Your task to perform on an android device: toggle improve location accuracy Image 0: 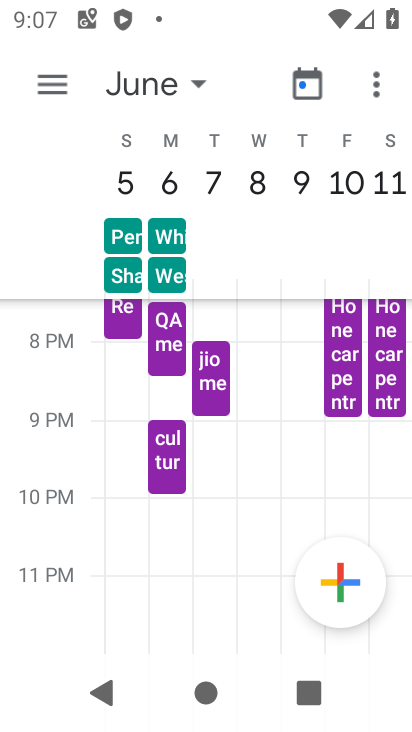
Step 0: press home button
Your task to perform on an android device: toggle improve location accuracy Image 1: 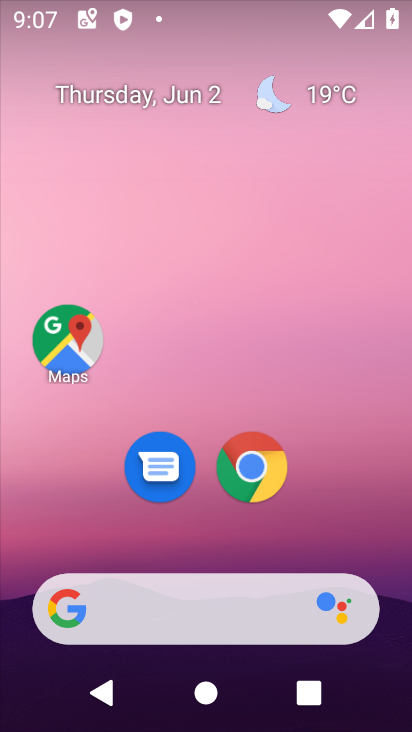
Step 1: drag from (197, 539) to (143, 18)
Your task to perform on an android device: toggle improve location accuracy Image 2: 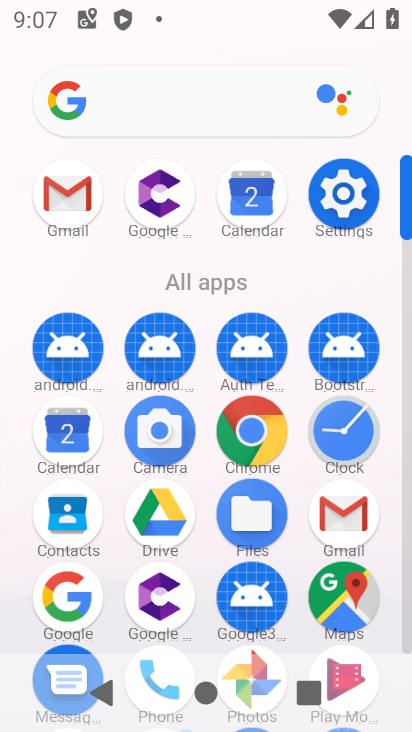
Step 2: click (339, 203)
Your task to perform on an android device: toggle improve location accuracy Image 3: 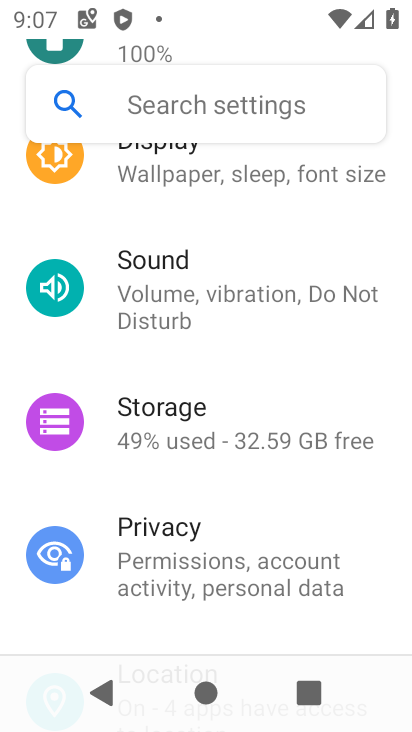
Step 3: drag from (219, 208) to (229, 394)
Your task to perform on an android device: toggle improve location accuracy Image 4: 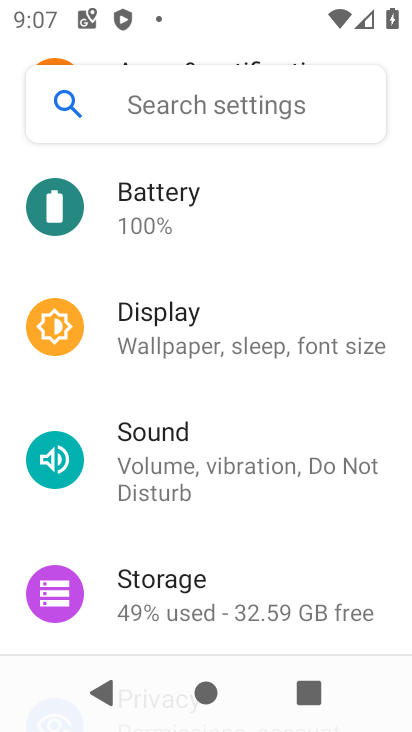
Step 4: drag from (223, 298) to (228, 524)
Your task to perform on an android device: toggle improve location accuracy Image 5: 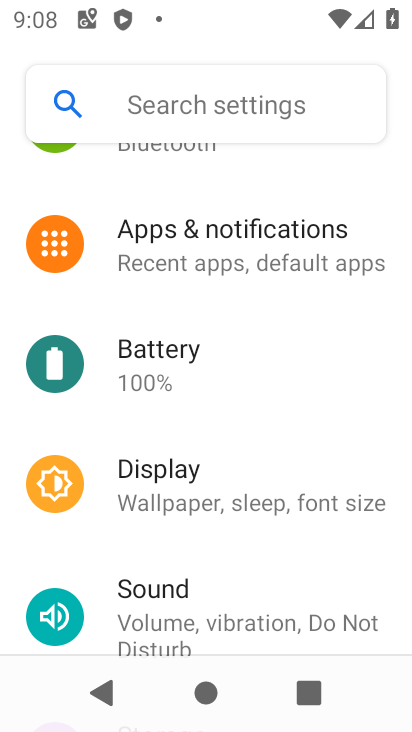
Step 5: drag from (196, 317) to (191, 637)
Your task to perform on an android device: toggle improve location accuracy Image 6: 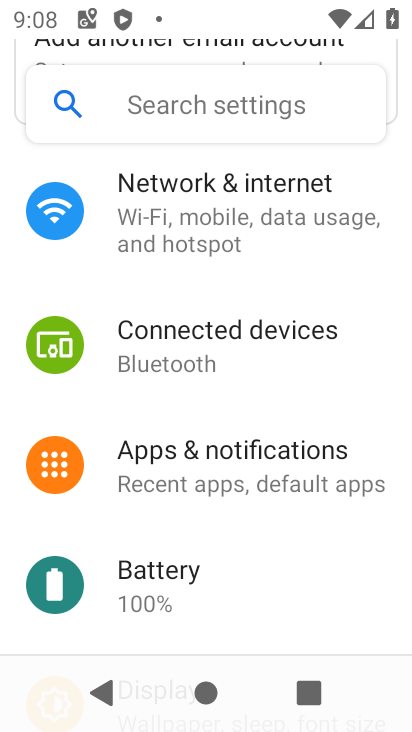
Step 6: drag from (210, 326) to (211, 579)
Your task to perform on an android device: toggle improve location accuracy Image 7: 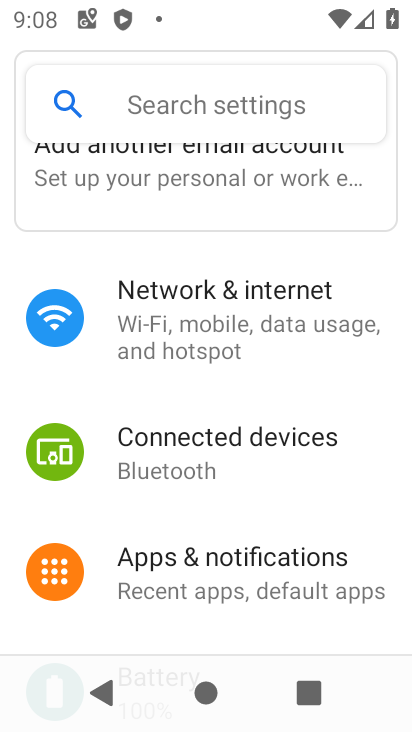
Step 7: drag from (211, 572) to (235, 152)
Your task to perform on an android device: toggle improve location accuracy Image 8: 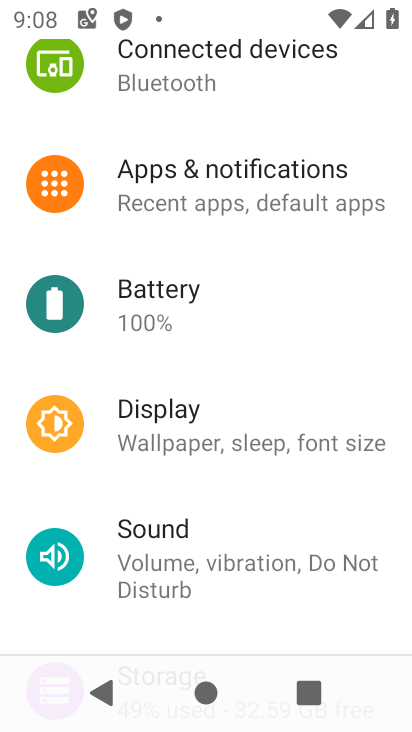
Step 8: drag from (221, 547) to (200, 260)
Your task to perform on an android device: toggle improve location accuracy Image 9: 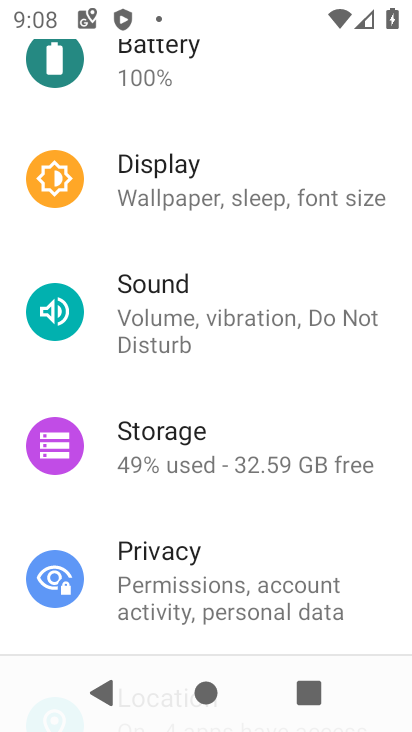
Step 9: drag from (203, 330) to (198, 546)
Your task to perform on an android device: toggle improve location accuracy Image 10: 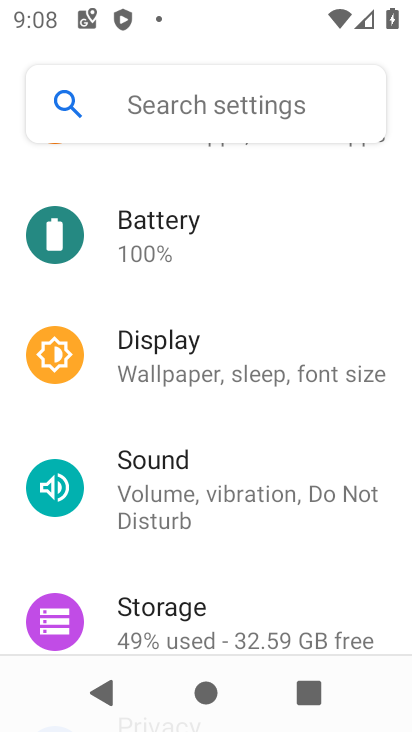
Step 10: drag from (240, 325) to (220, 662)
Your task to perform on an android device: toggle improve location accuracy Image 11: 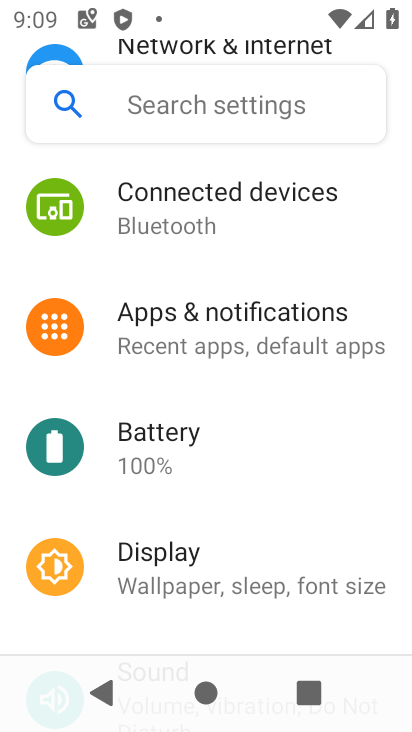
Step 11: drag from (234, 563) to (193, 395)
Your task to perform on an android device: toggle improve location accuracy Image 12: 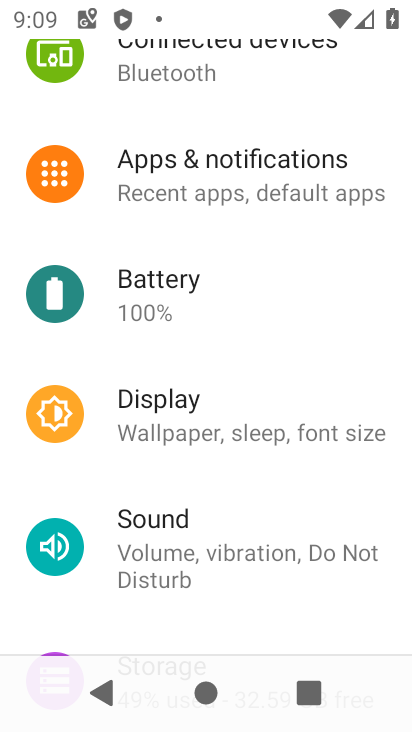
Step 12: drag from (210, 537) to (222, 264)
Your task to perform on an android device: toggle improve location accuracy Image 13: 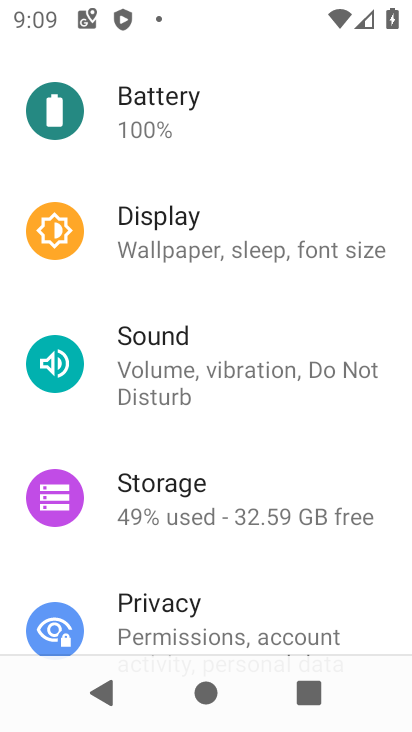
Step 13: drag from (210, 531) to (204, 311)
Your task to perform on an android device: toggle improve location accuracy Image 14: 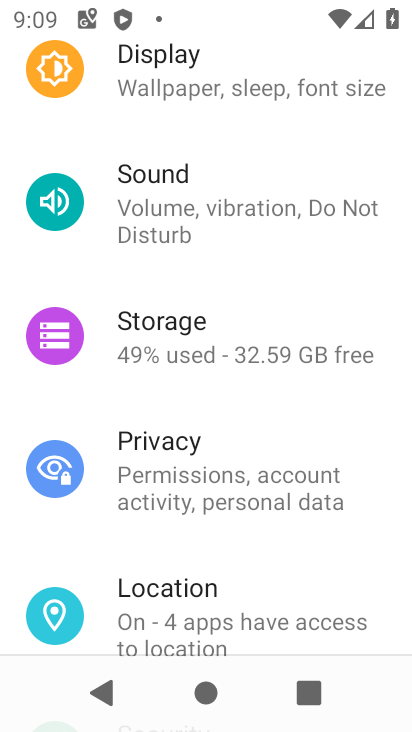
Step 14: click (176, 609)
Your task to perform on an android device: toggle improve location accuracy Image 15: 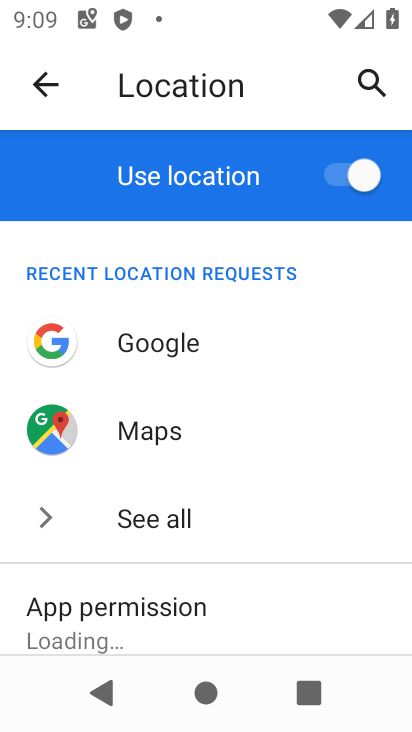
Step 15: drag from (210, 581) to (222, 264)
Your task to perform on an android device: toggle improve location accuracy Image 16: 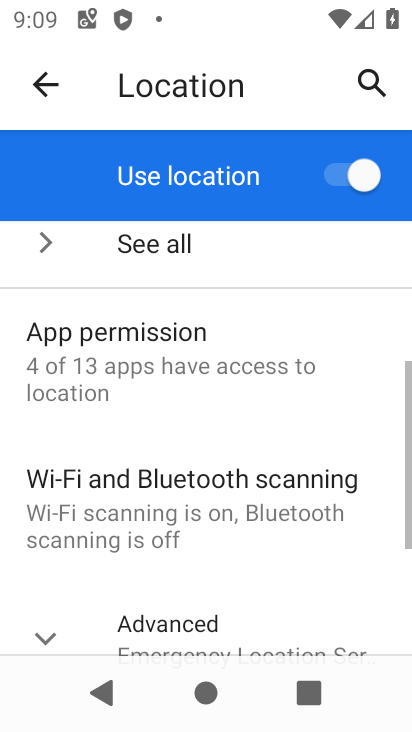
Step 16: drag from (166, 567) to (163, 338)
Your task to perform on an android device: toggle improve location accuracy Image 17: 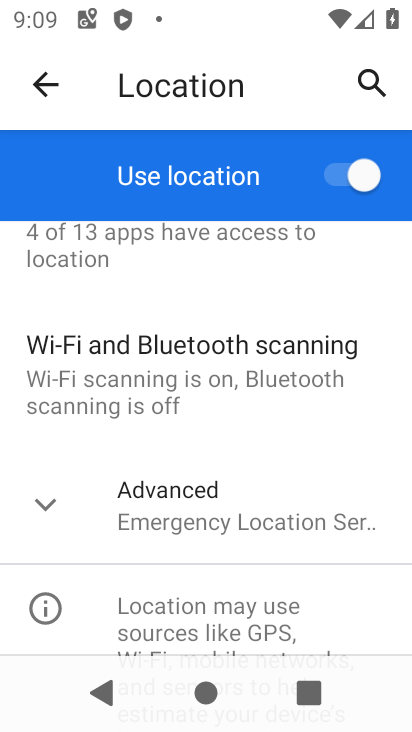
Step 17: click (126, 512)
Your task to perform on an android device: toggle improve location accuracy Image 18: 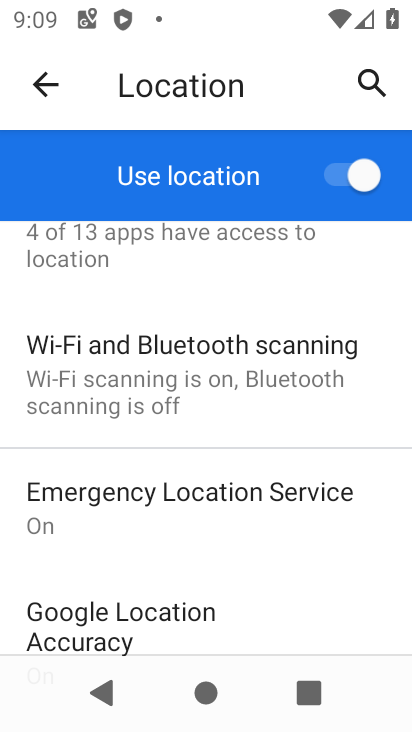
Step 18: click (183, 630)
Your task to perform on an android device: toggle improve location accuracy Image 19: 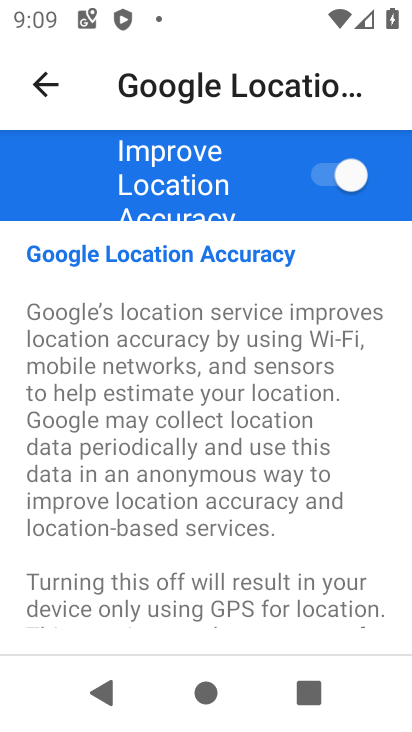
Step 19: click (323, 186)
Your task to perform on an android device: toggle improve location accuracy Image 20: 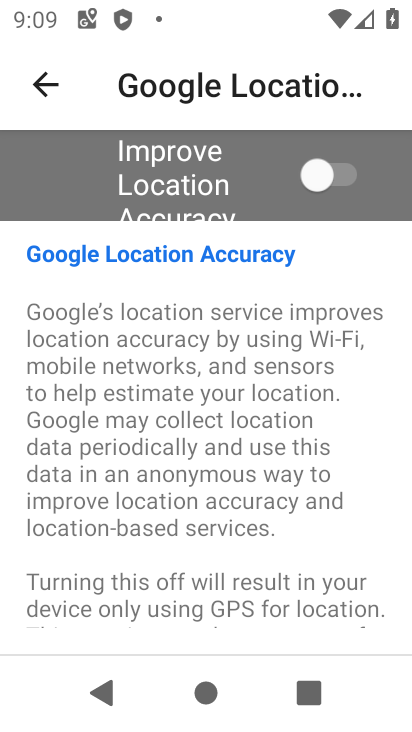
Step 20: task complete